Your task to perform on an android device: delete the emails in spam in the gmail app Image 0: 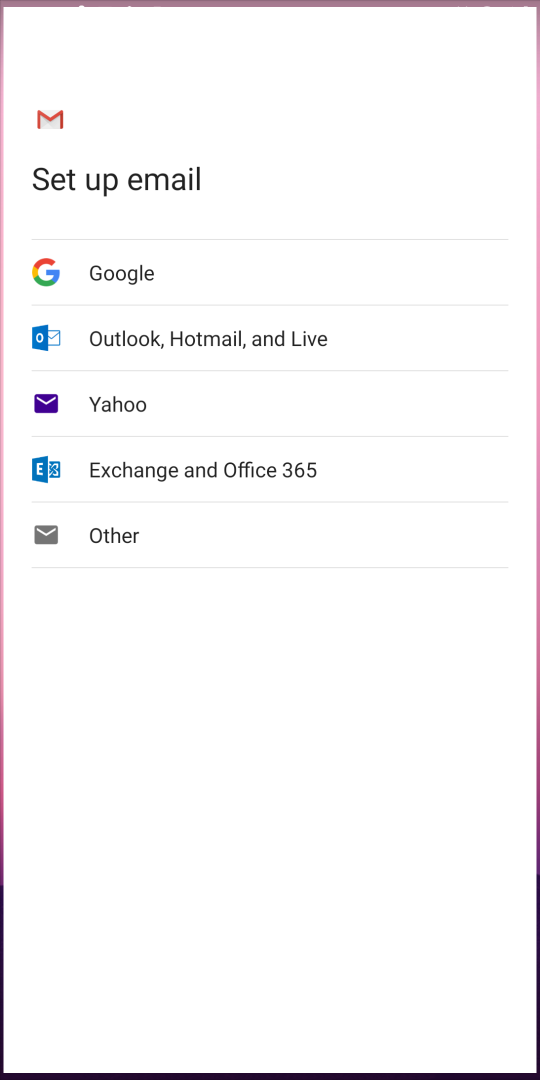
Step 0: press home button
Your task to perform on an android device: delete the emails in spam in the gmail app Image 1: 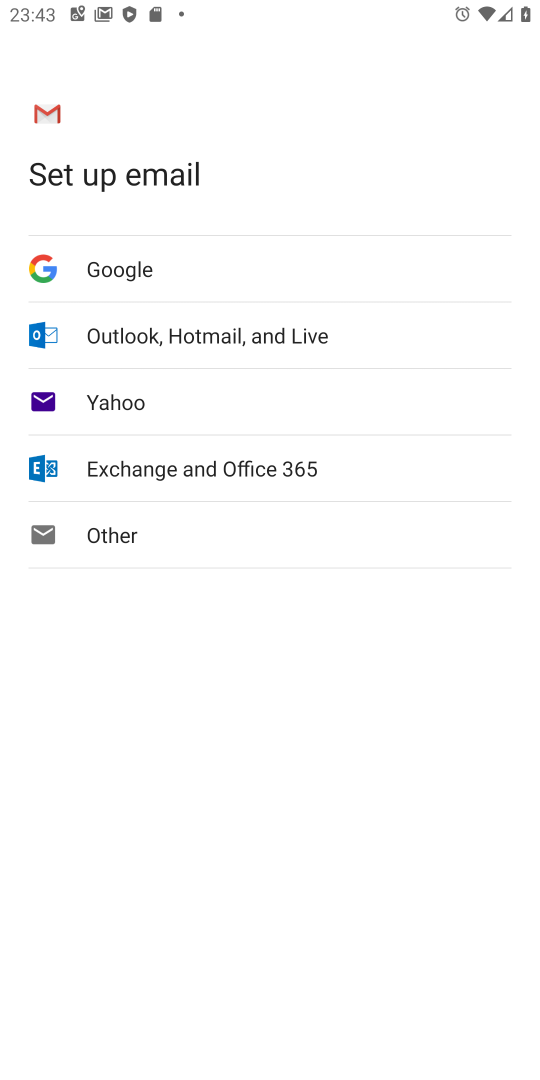
Step 1: press home button
Your task to perform on an android device: delete the emails in spam in the gmail app Image 2: 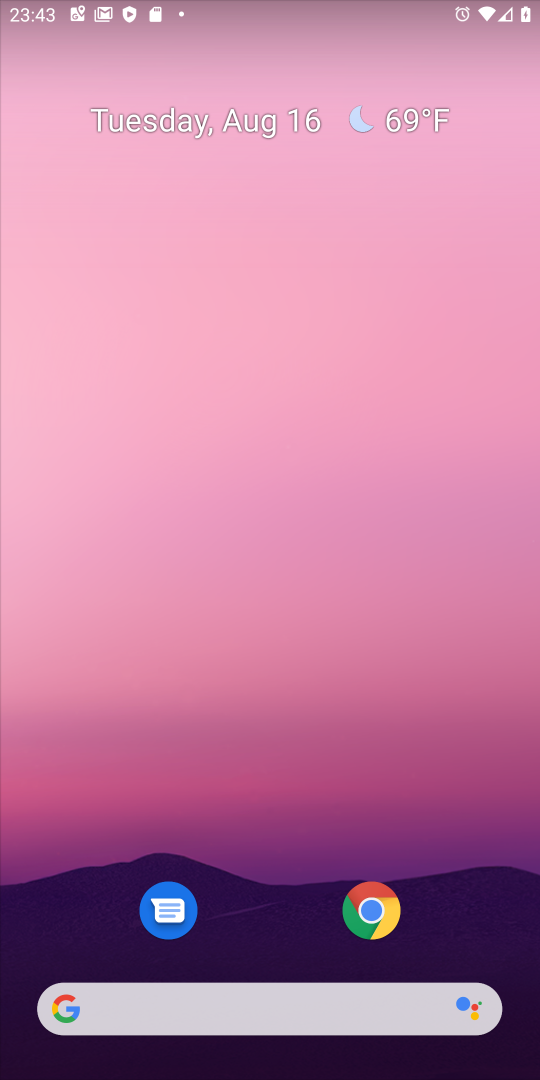
Step 2: drag from (235, 872) to (317, 211)
Your task to perform on an android device: delete the emails in spam in the gmail app Image 3: 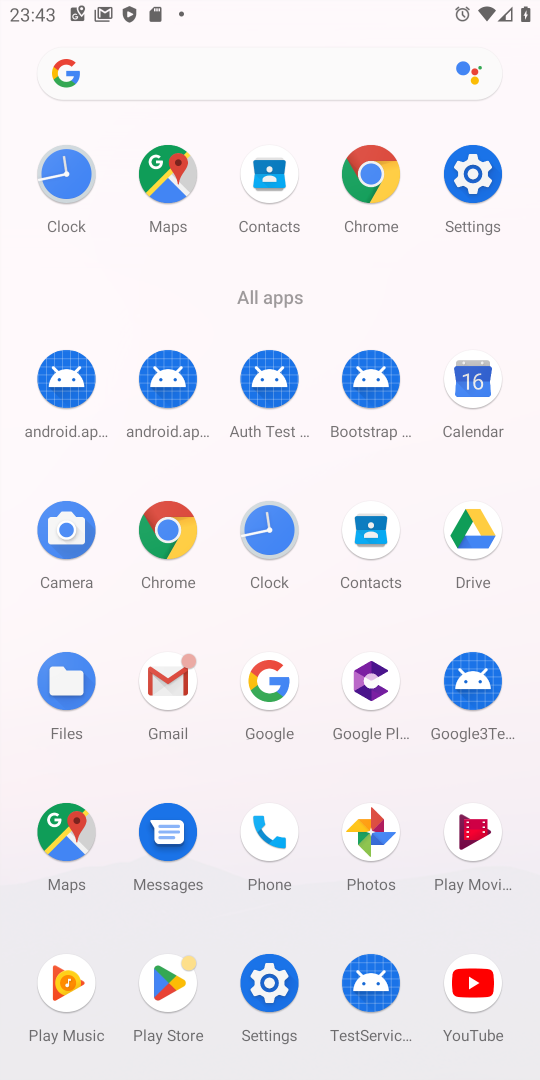
Step 3: click (169, 695)
Your task to perform on an android device: delete the emails in spam in the gmail app Image 4: 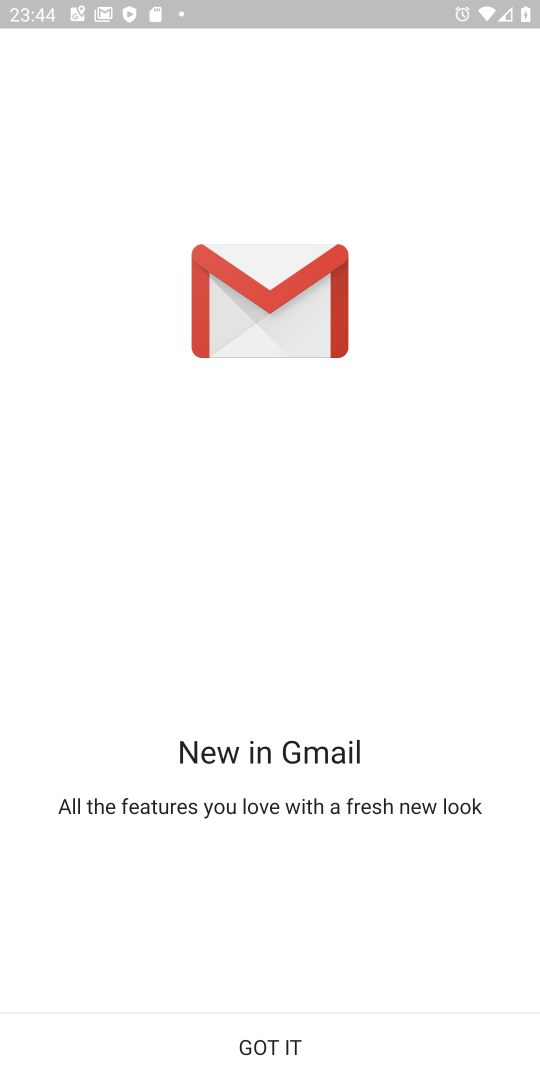
Step 4: click (314, 1045)
Your task to perform on an android device: delete the emails in spam in the gmail app Image 5: 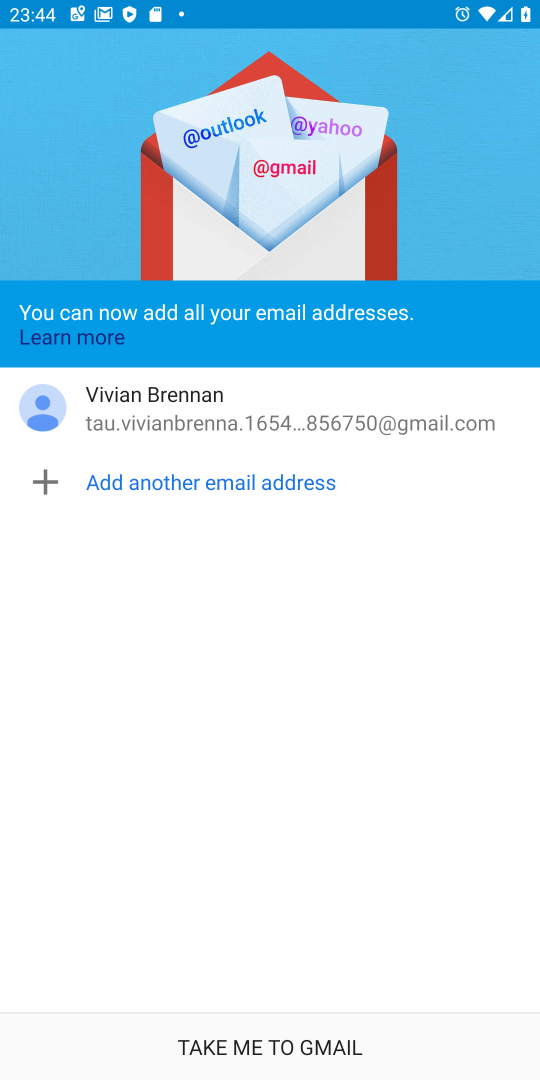
Step 5: click (304, 1038)
Your task to perform on an android device: delete the emails in spam in the gmail app Image 6: 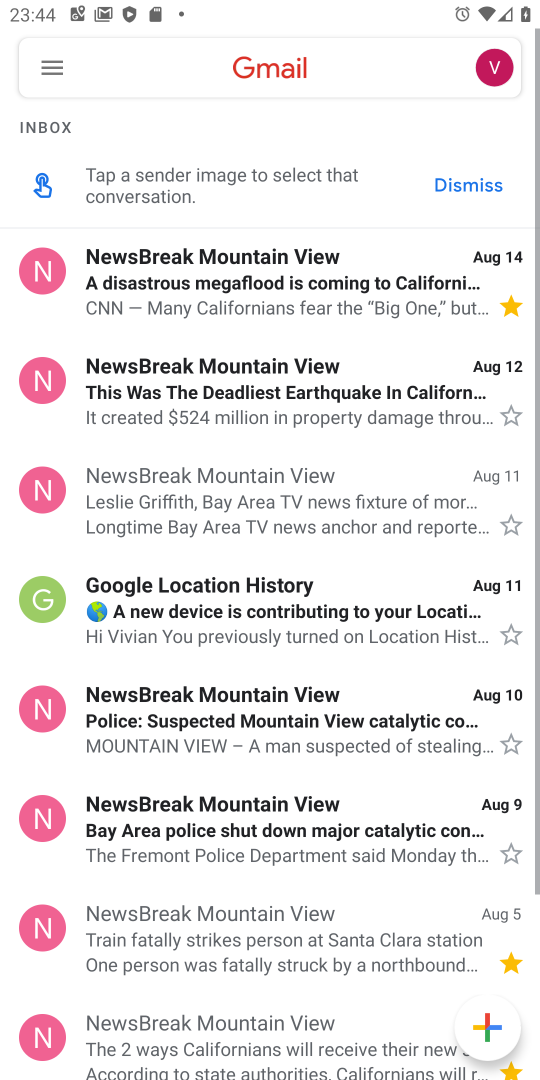
Step 6: click (51, 54)
Your task to perform on an android device: delete the emails in spam in the gmail app Image 7: 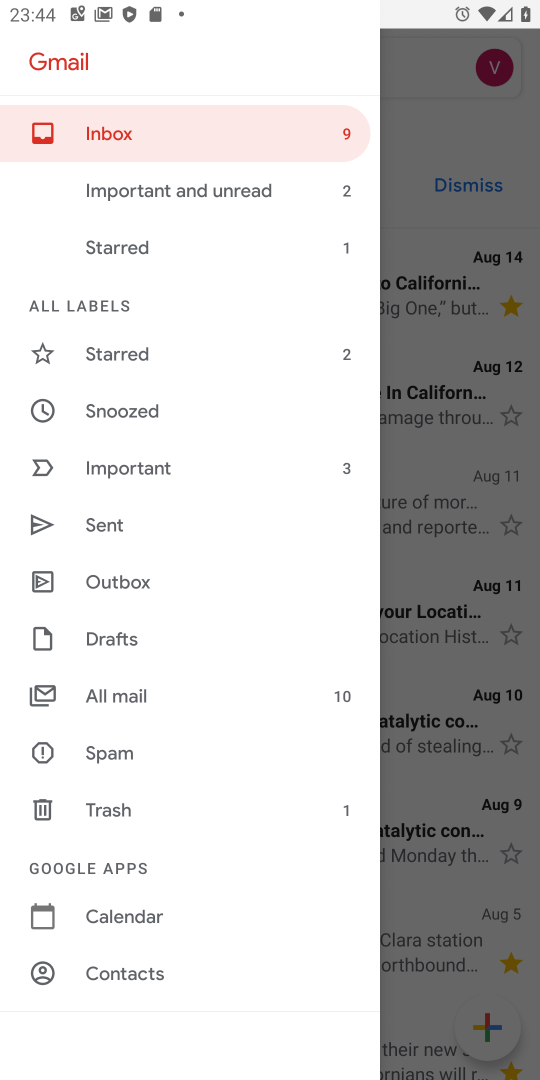
Step 7: click (114, 750)
Your task to perform on an android device: delete the emails in spam in the gmail app Image 8: 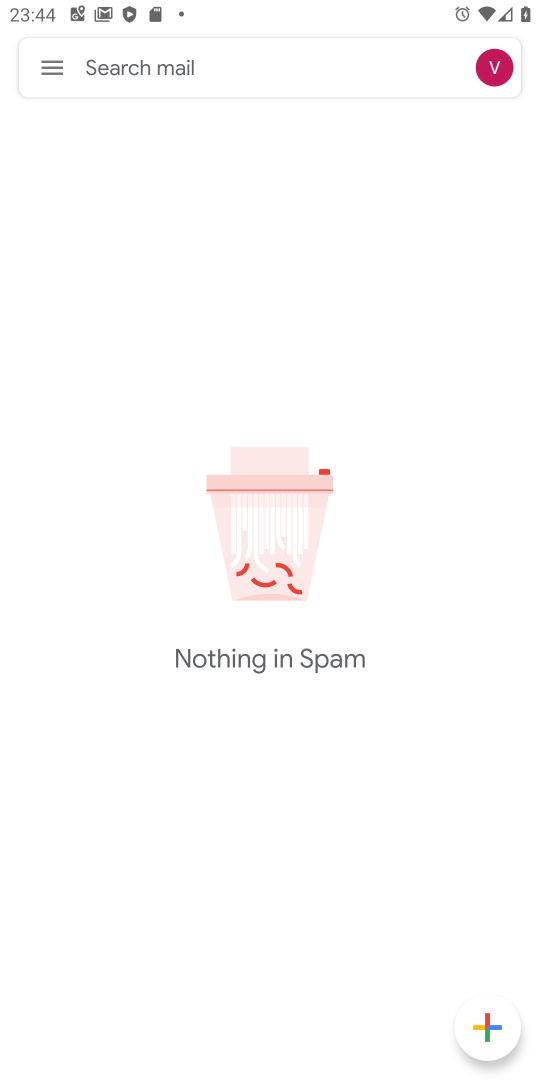
Step 8: task complete